Your task to perform on an android device: Empty the shopping cart on amazon.com. Image 0: 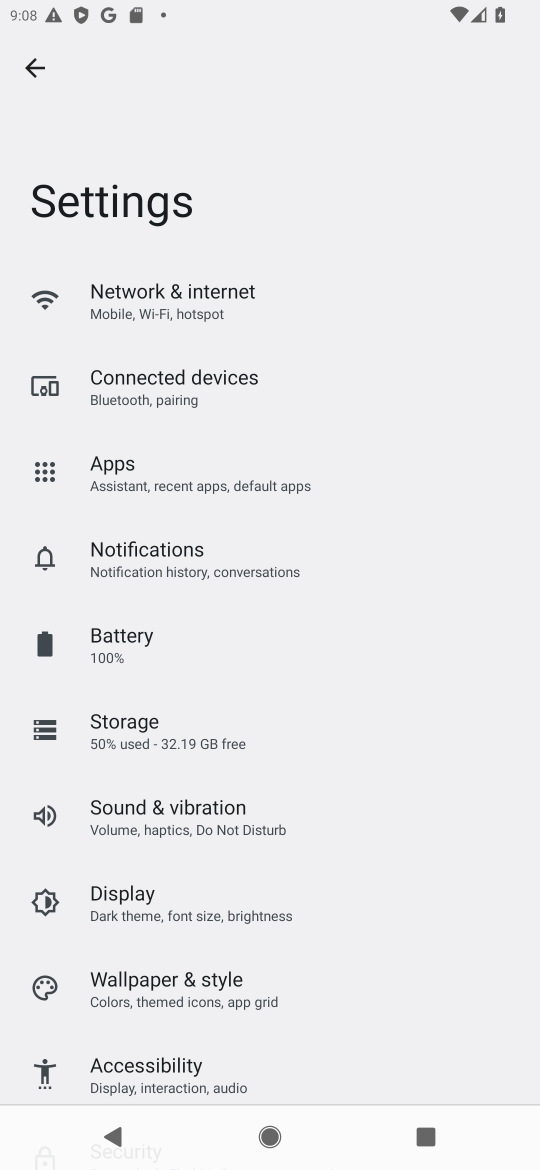
Step 0: press home button
Your task to perform on an android device: Empty the shopping cart on amazon.com. Image 1: 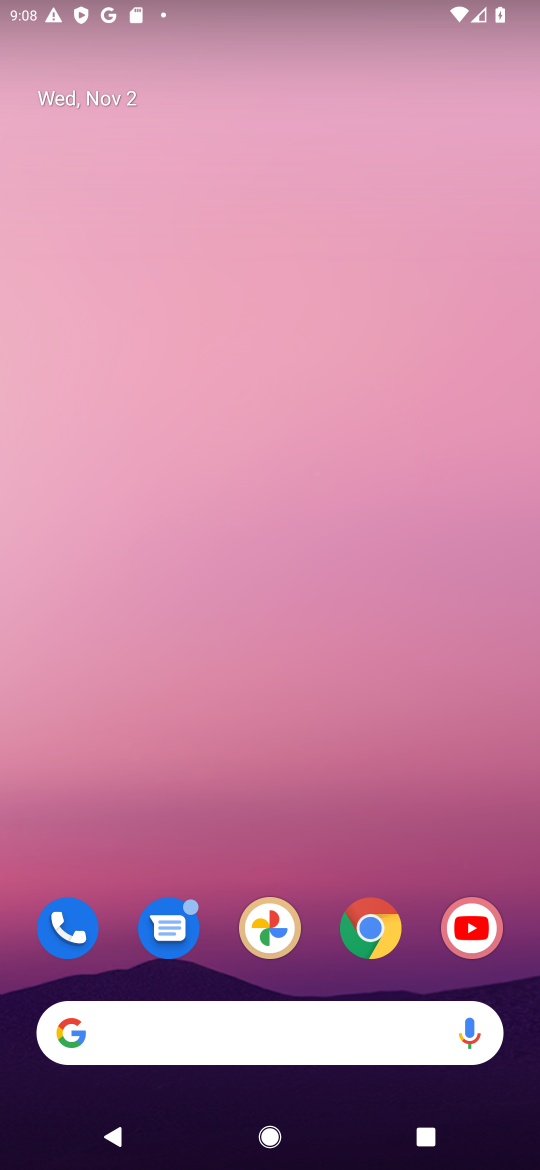
Step 1: click (364, 931)
Your task to perform on an android device: Empty the shopping cart on amazon.com. Image 2: 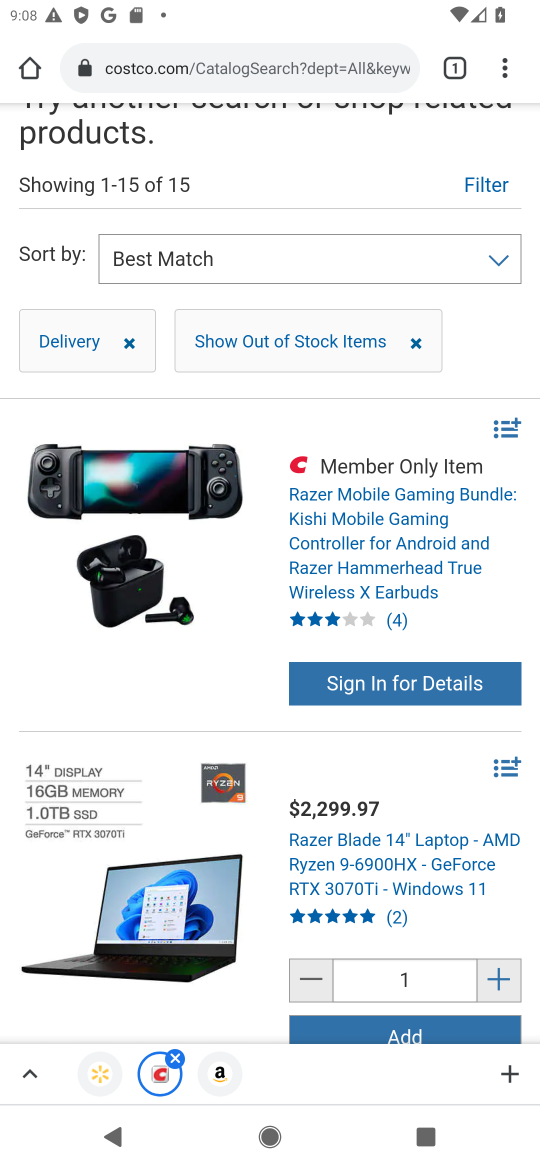
Step 2: click (221, 53)
Your task to perform on an android device: Empty the shopping cart on amazon.com. Image 3: 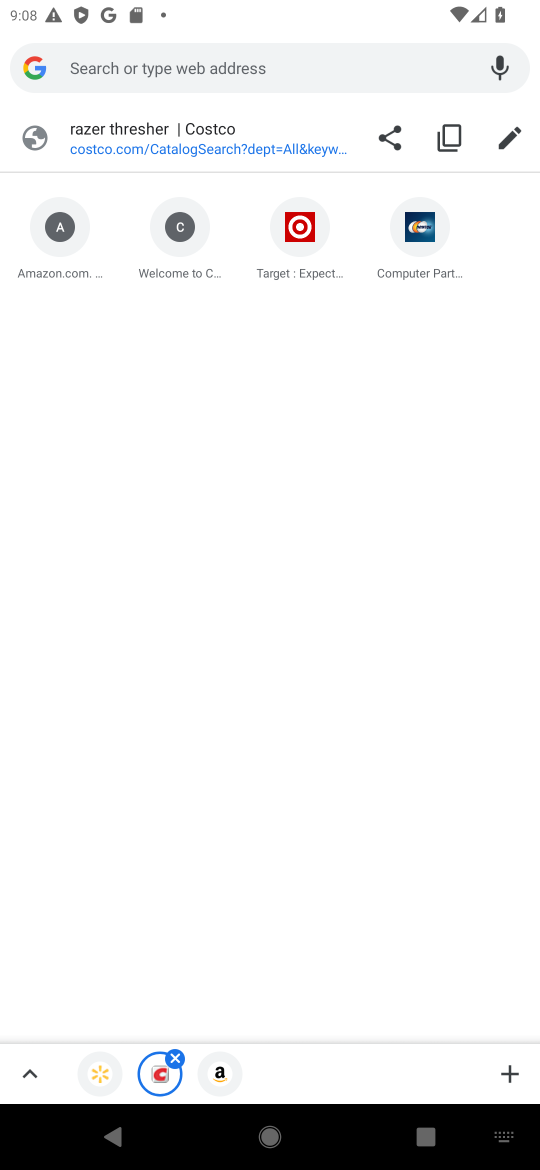
Step 3: type "amazon.com"
Your task to perform on an android device: Empty the shopping cart on amazon.com. Image 4: 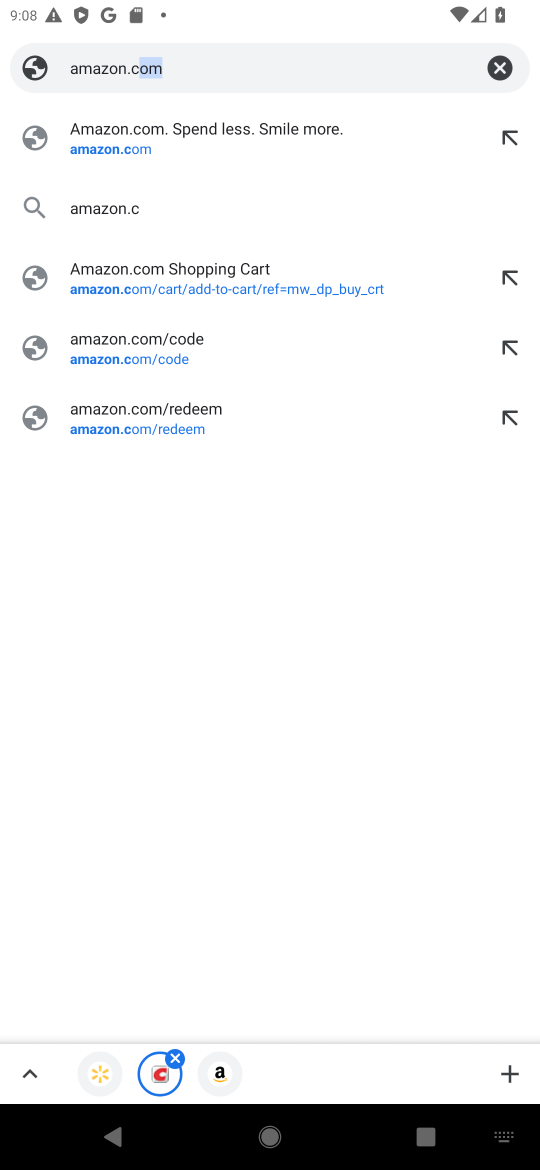
Step 4: type ""
Your task to perform on an android device: Empty the shopping cart on amazon.com. Image 5: 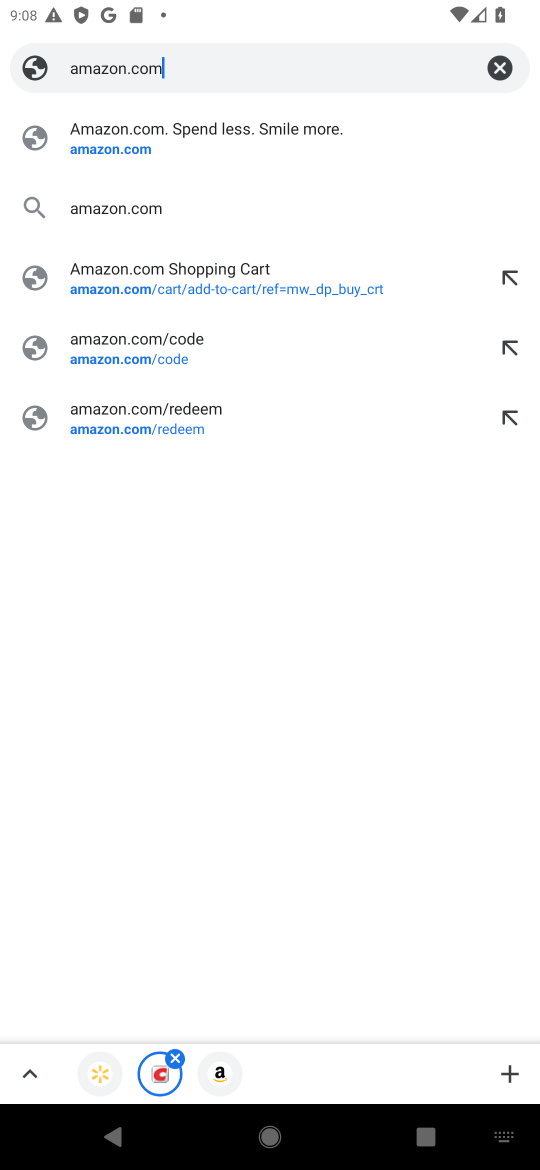
Step 5: click (261, 137)
Your task to perform on an android device: Empty the shopping cart on amazon.com. Image 6: 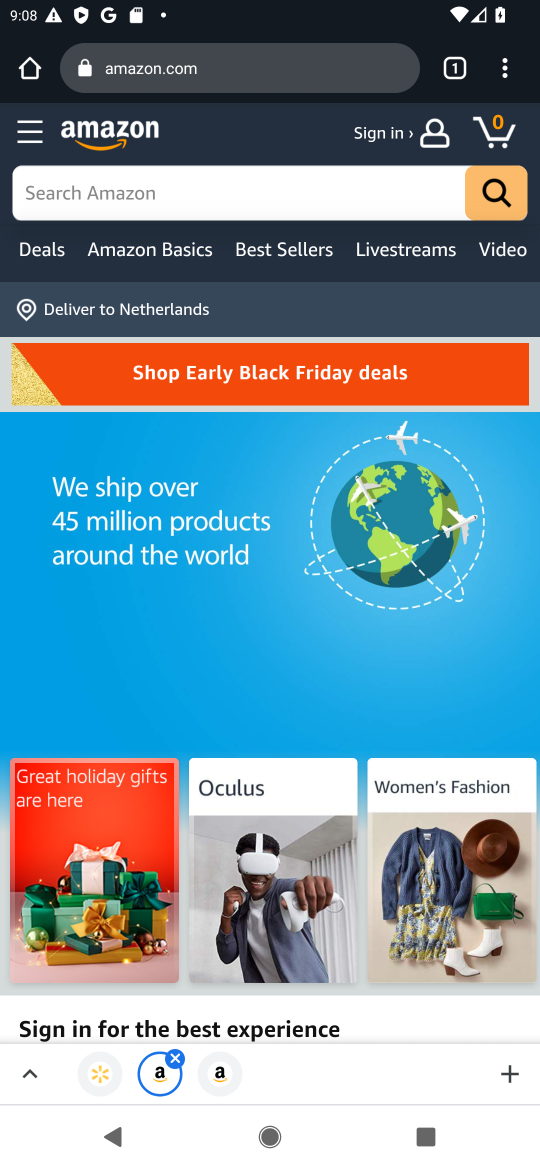
Step 6: click (232, 204)
Your task to perform on an android device: Empty the shopping cart on amazon.com. Image 7: 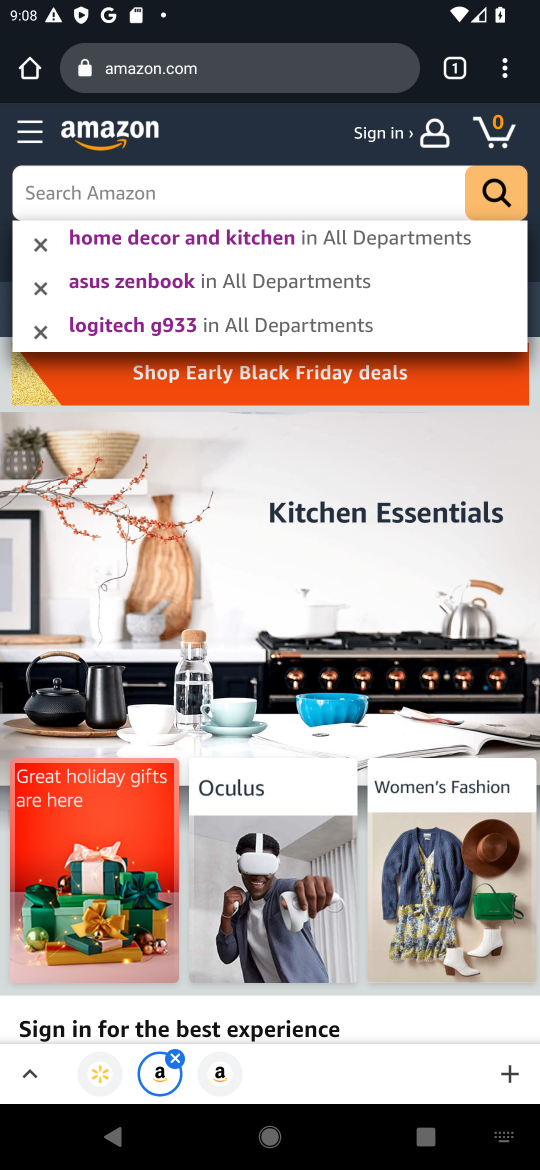
Step 7: click (513, 139)
Your task to perform on an android device: Empty the shopping cart on amazon.com. Image 8: 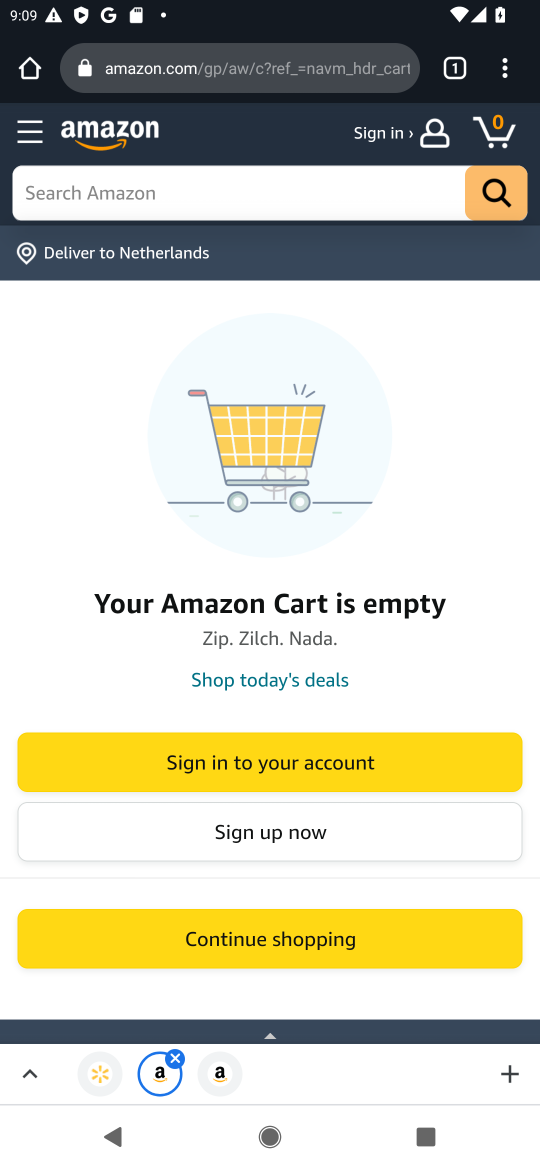
Step 8: task complete